Your task to perform on an android device: toggle notifications settings in the gmail app Image 0: 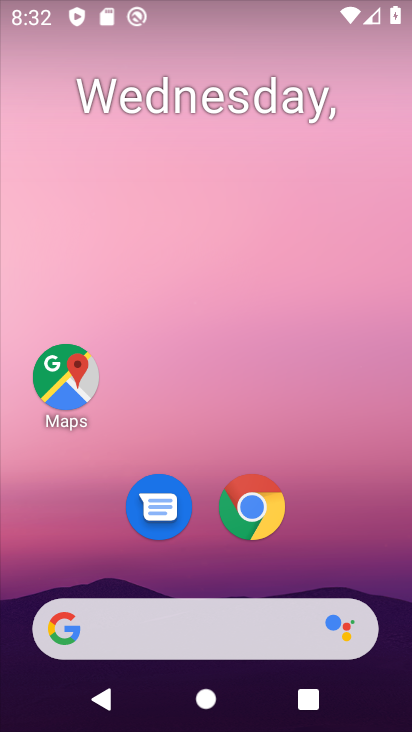
Step 0: drag from (210, 515) to (214, 246)
Your task to perform on an android device: toggle notifications settings in the gmail app Image 1: 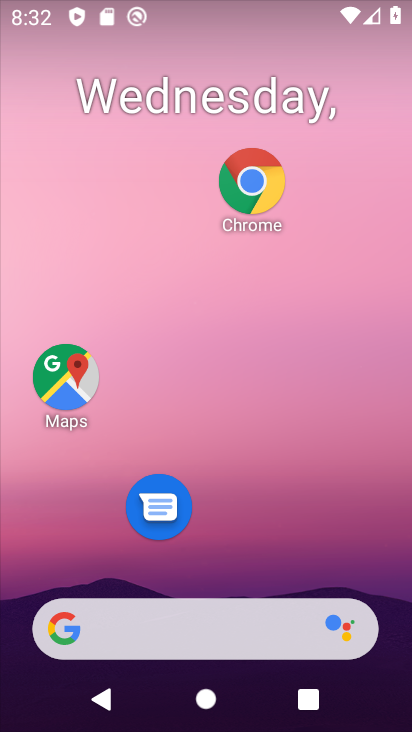
Step 1: drag from (251, 566) to (276, 202)
Your task to perform on an android device: toggle notifications settings in the gmail app Image 2: 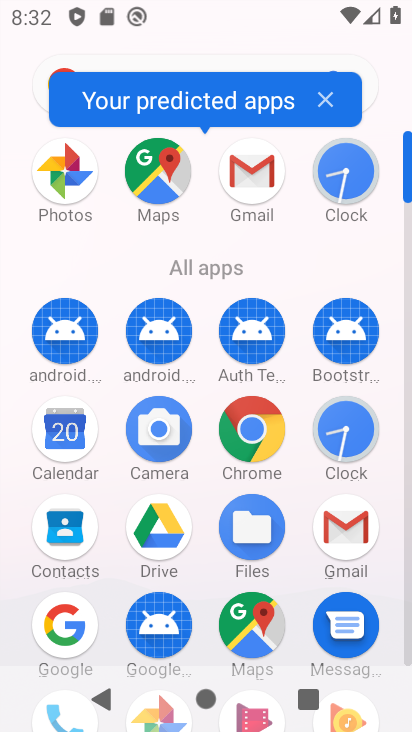
Step 2: click (354, 540)
Your task to perform on an android device: toggle notifications settings in the gmail app Image 3: 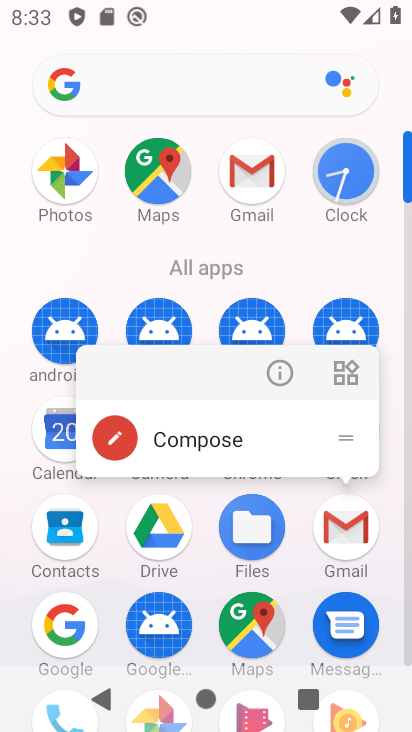
Step 3: click (331, 539)
Your task to perform on an android device: toggle notifications settings in the gmail app Image 4: 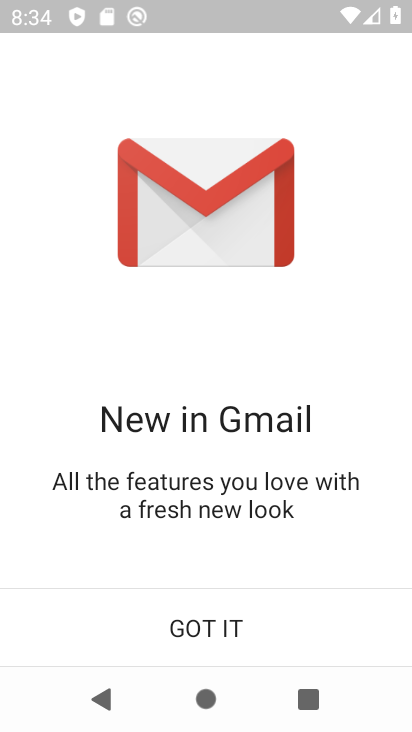
Step 4: click (285, 639)
Your task to perform on an android device: toggle notifications settings in the gmail app Image 5: 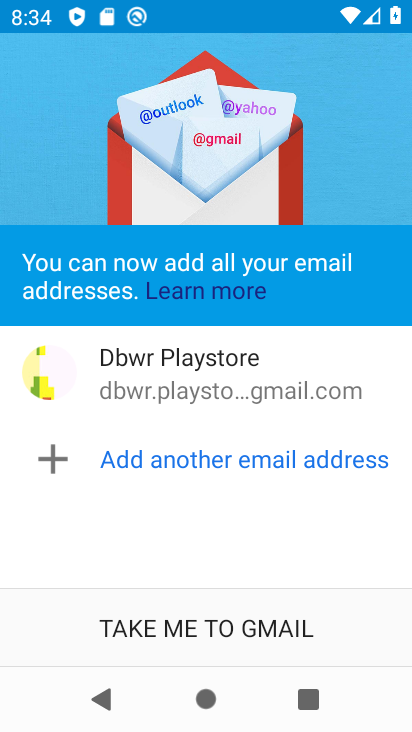
Step 5: click (278, 637)
Your task to perform on an android device: toggle notifications settings in the gmail app Image 6: 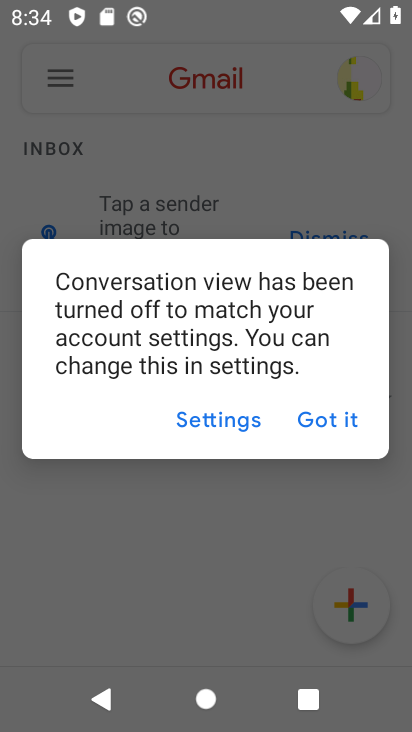
Step 6: click (330, 424)
Your task to perform on an android device: toggle notifications settings in the gmail app Image 7: 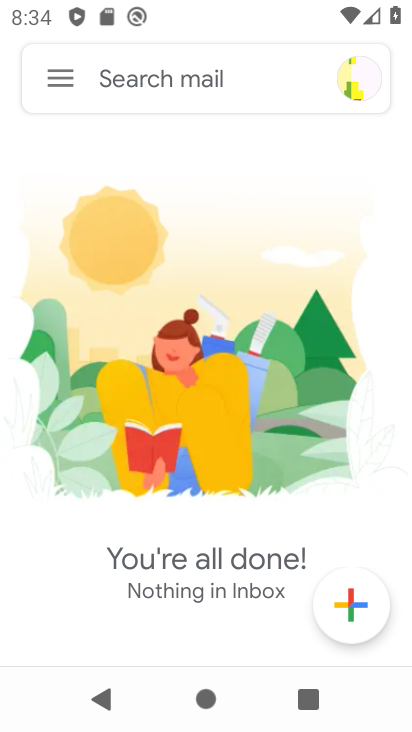
Step 7: click (74, 86)
Your task to perform on an android device: toggle notifications settings in the gmail app Image 8: 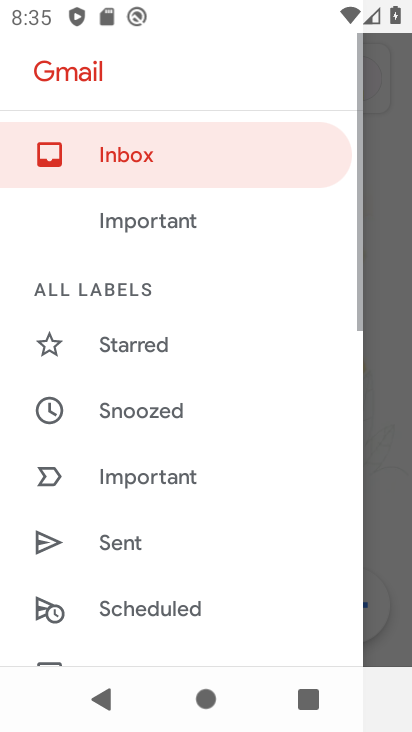
Step 8: drag from (141, 388) to (158, 38)
Your task to perform on an android device: toggle notifications settings in the gmail app Image 9: 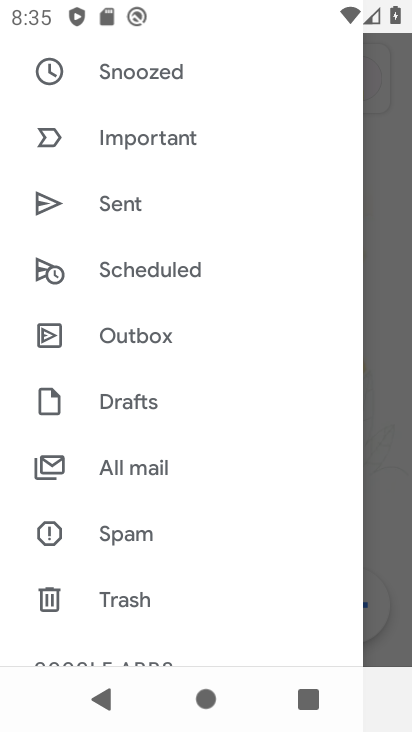
Step 9: drag from (243, 344) to (339, 6)
Your task to perform on an android device: toggle notifications settings in the gmail app Image 10: 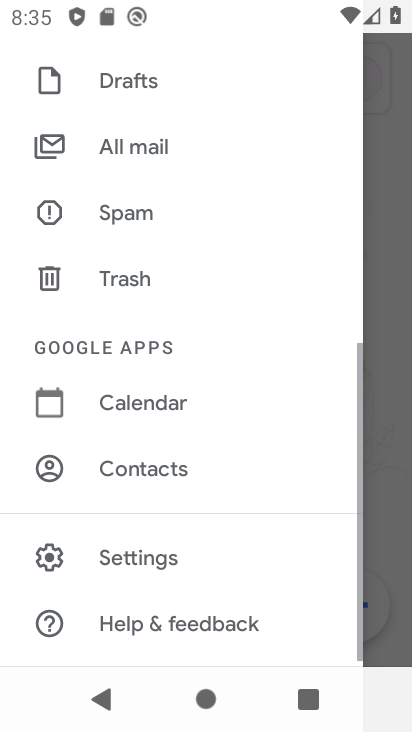
Step 10: click (190, 558)
Your task to perform on an android device: toggle notifications settings in the gmail app Image 11: 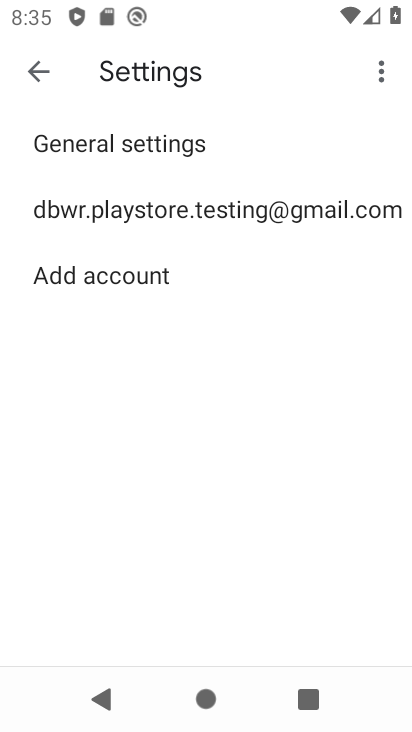
Step 11: click (215, 157)
Your task to perform on an android device: toggle notifications settings in the gmail app Image 12: 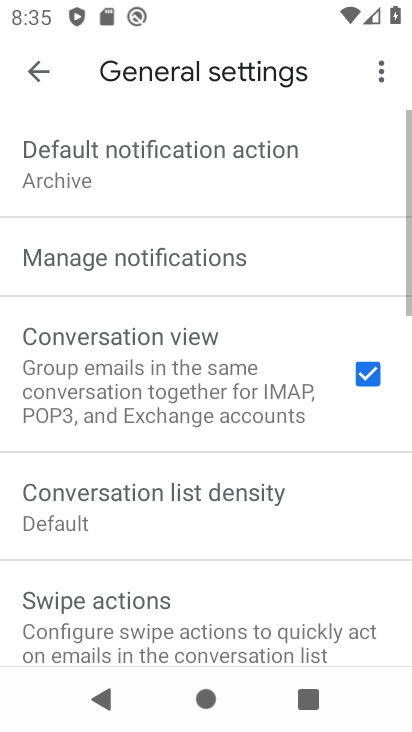
Step 12: click (211, 256)
Your task to perform on an android device: toggle notifications settings in the gmail app Image 13: 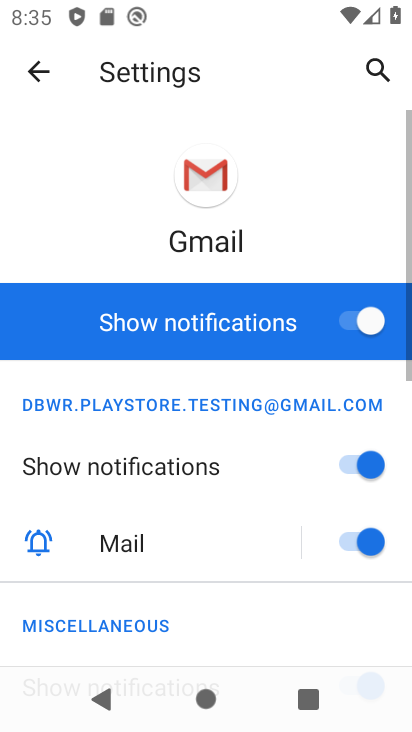
Step 13: click (350, 322)
Your task to perform on an android device: toggle notifications settings in the gmail app Image 14: 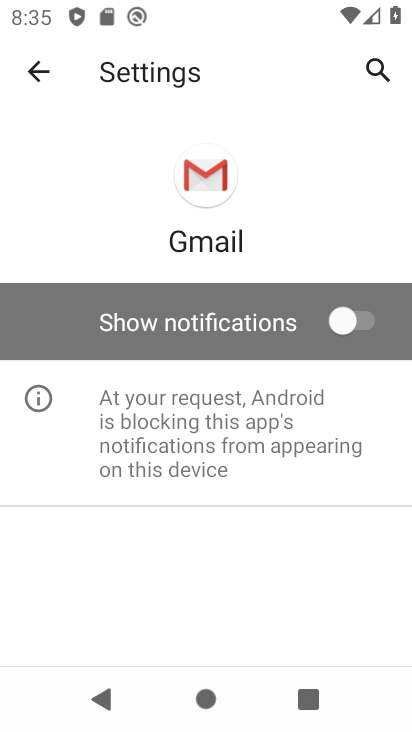
Step 14: task complete